Your task to perform on an android device: Open Android settings Image 0: 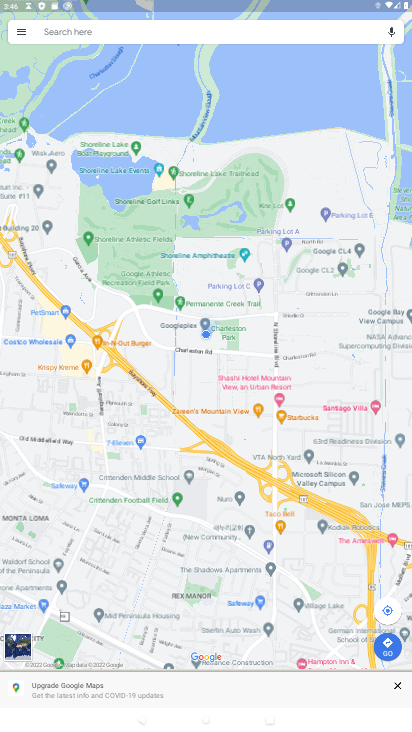
Step 0: press home button
Your task to perform on an android device: Open Android settings Image 1: 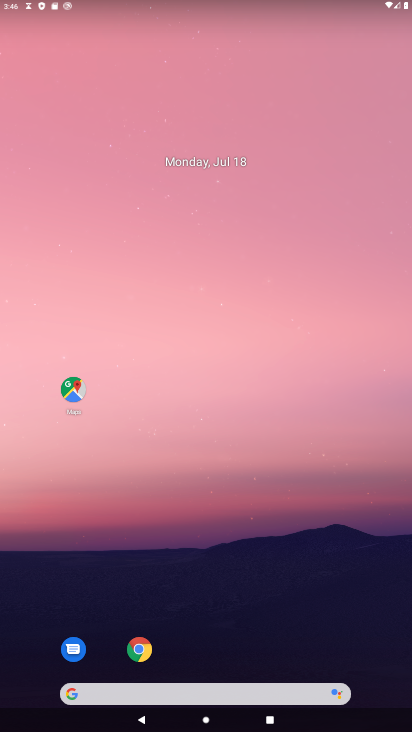
Step 1: drag from (239, 576) to (184, 96)
Your task to perform on an android device: Open Android settings Image 2: 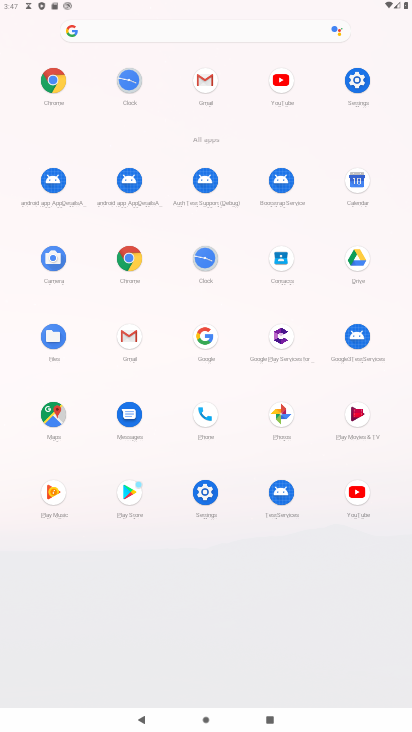
Step 2: click (350, 81)
Your task to perform on an android device: Open Android settings Image 3: 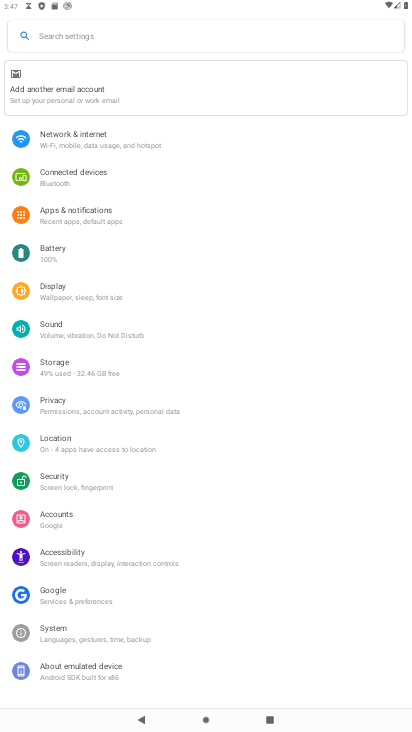
Step 3: task complete